Your task to perform on an android device: Open maps Image 0: 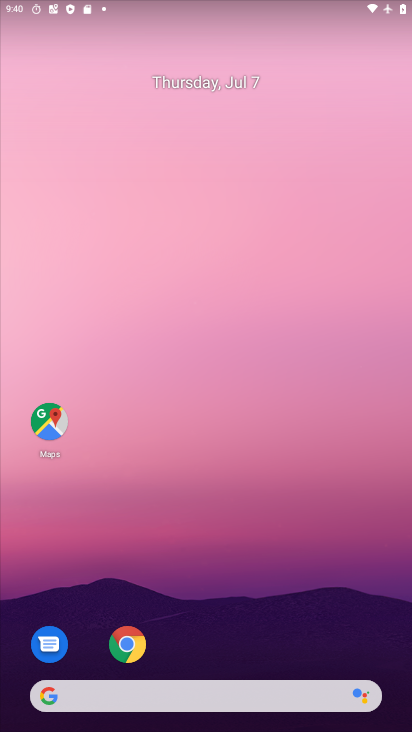
Step 0: click (53, 417)
Your task to perform on an android device: Open maps Image 1: 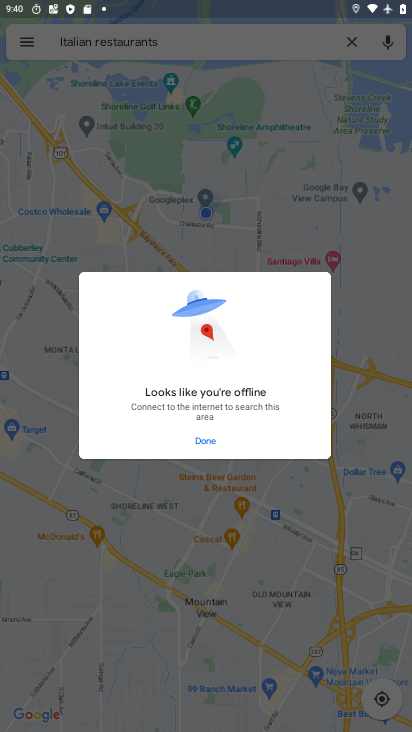
Step 1: task complete